Your task to perform on an android device: toggle priority inbox in the gmail app Image 0: 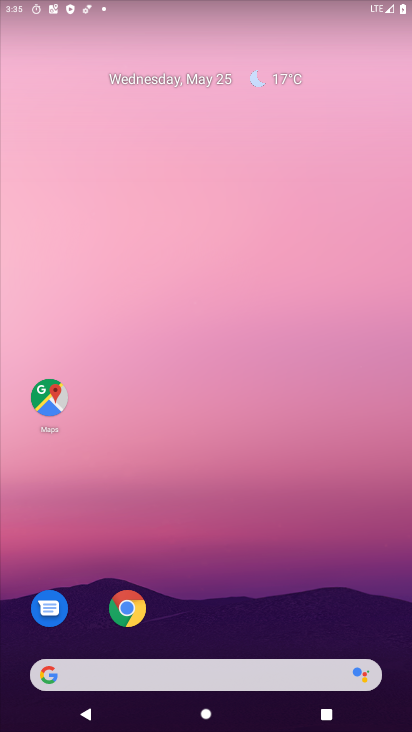
Step 0: drag from (286, 479) to (303, 110)
Your task to perform on an android device: toggle priority inbox in the gmail app Image 1: 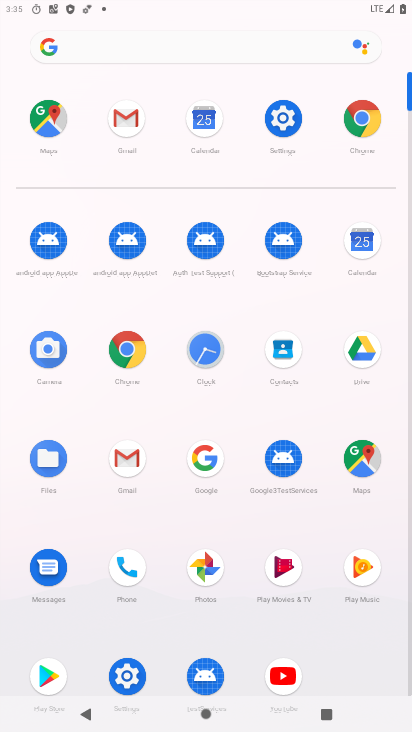
Step 1: click (122, 468)
Your task to perform on an android device: toggle priority inbox in the gmail app Image 2: 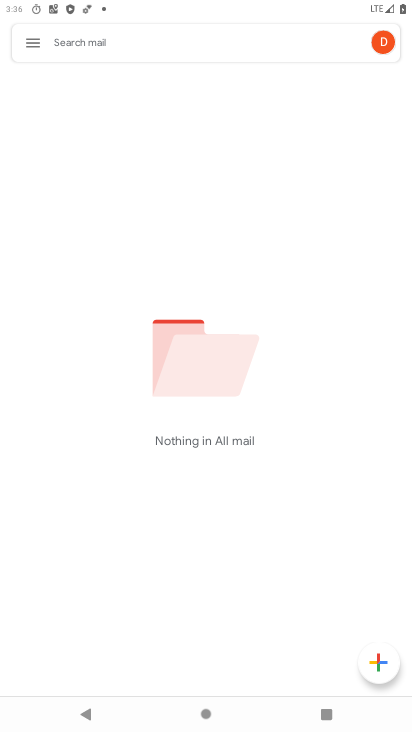
Step 2: click (27, 43)
Your task to perform on an android device: toggle priority inbox in the gmail app Image 3: 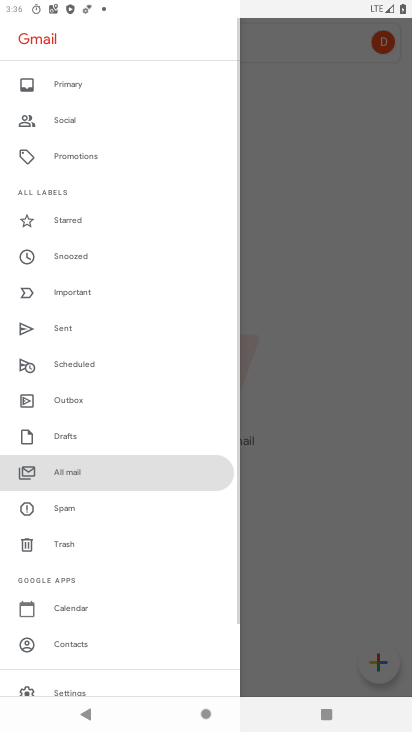
Step 3: drag from (106, 654) to (140, 289)
Your task to perform on an android device: toggle priority inbox in the gmail app Image 4: 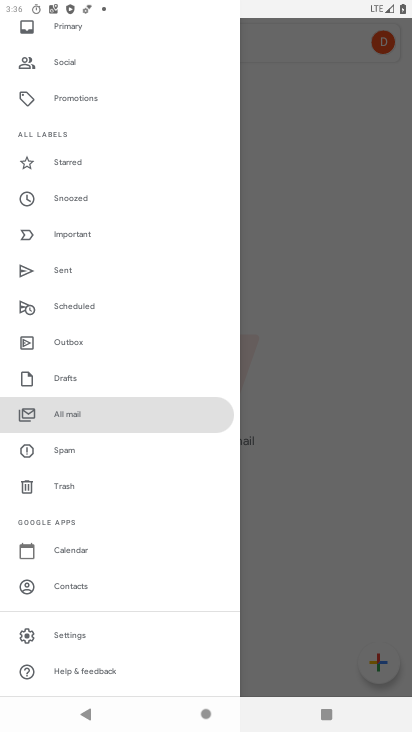
Step 4: click (72, 637)
Your task to perform on an android device: toggle priority inbox in the gmail app Image 5: 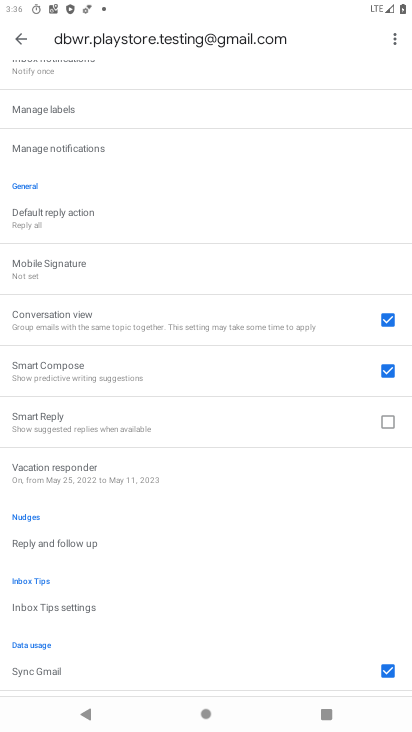
Step 5: drag from (156, 162) to (182, 596)
Your task to perform on an android device: toggle priority inbox in the gmail app Image 6: 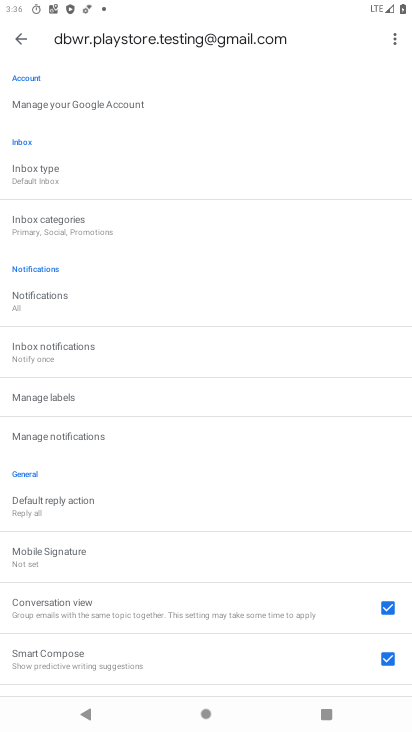
Step 6: click (57, 182)
Your task to perform on an android device: toggle priority inbox in the gmail app Image 7: 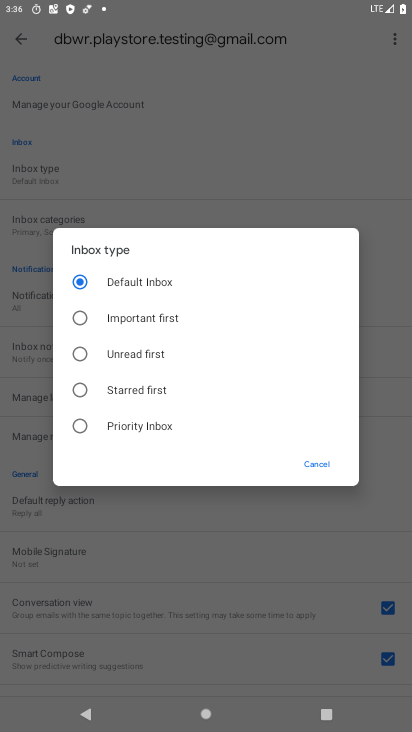
Step 7: click (129, 420)
Your task to perform on an android device: toggle priority inbox in the gmail app Image 8: 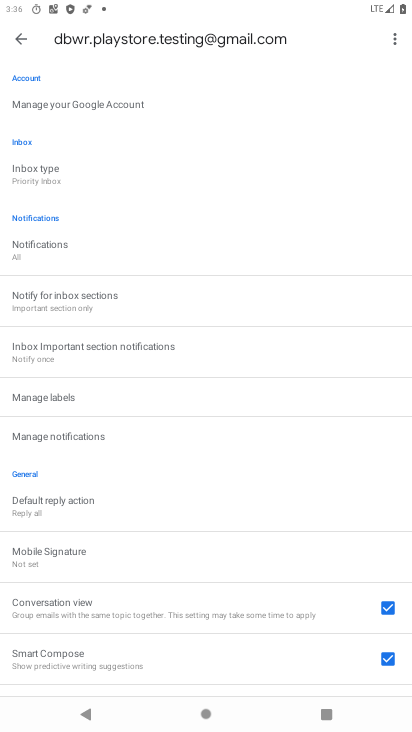
Step 8: task complete